Your task to perform on an android device: turn on data saver in the chrome app Image 0: 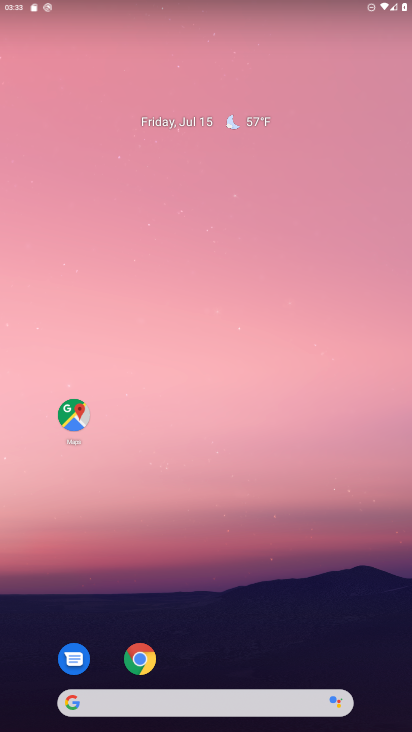
Step 0: drag from (238, 645) to (241, 50)
Your task to perform on an android device: turn on data saver in the chrome app Image 1: 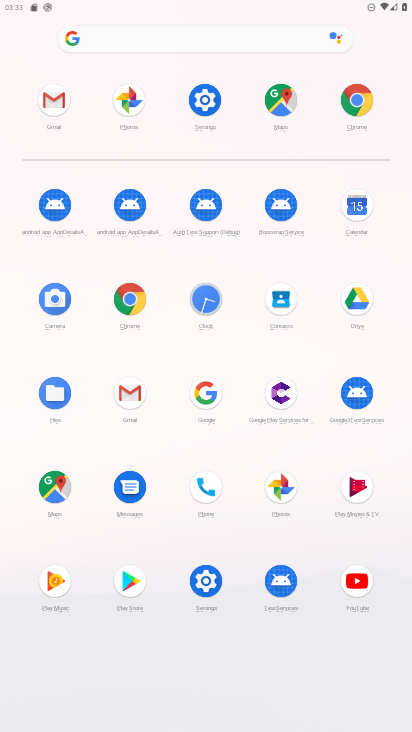
Step 1: click (135, 301)
Your task to perform on an android device: turn on data saver in the chrome app Image 2: 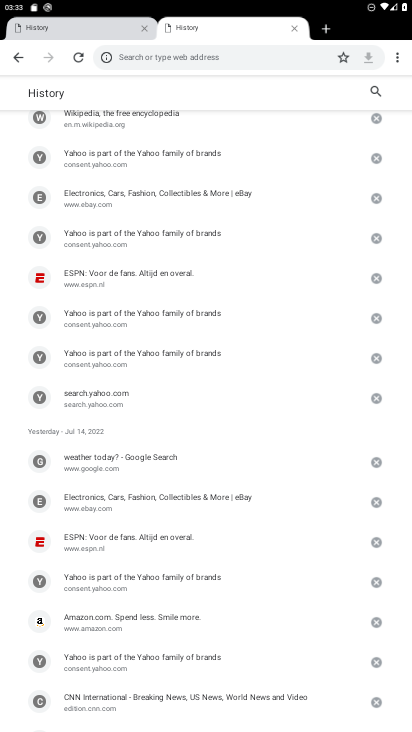
Step 2: click (398, 59)
Your task to perform on an android device: turn on data saver in the chrome app Image 3: 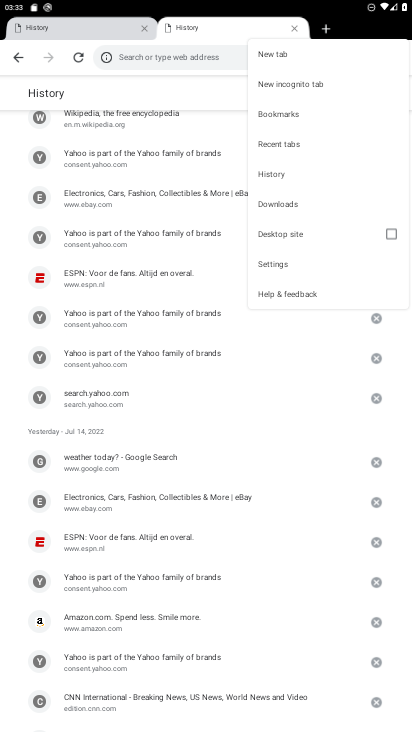
Step 3: click (268, 266)
Your task to perform on an android device: turn on data saver in the chrome app Image 4: 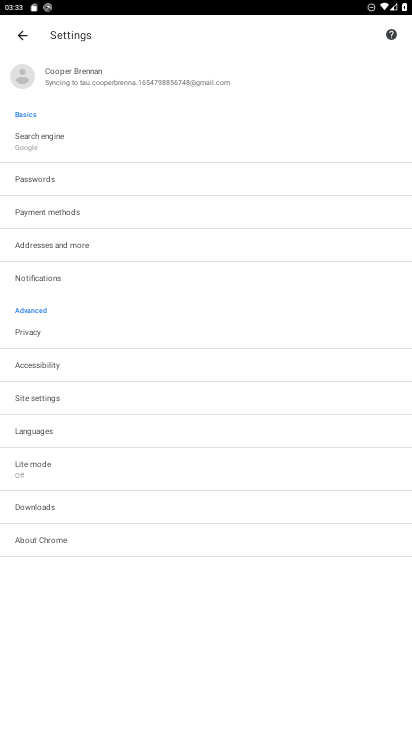
Step 4: click (46, 472)
Your task to perform on an android device: turn on data saver in the chrome app Image 5: 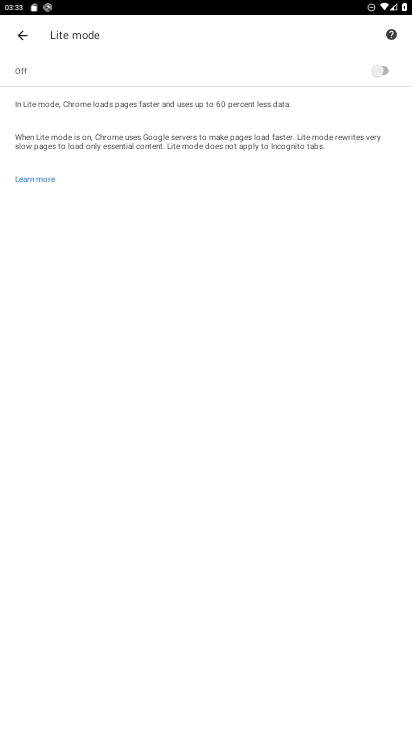
Step 5: click (389, 76)
Your task to perform on an android device: turn on data saver in the chrome app Image 6: 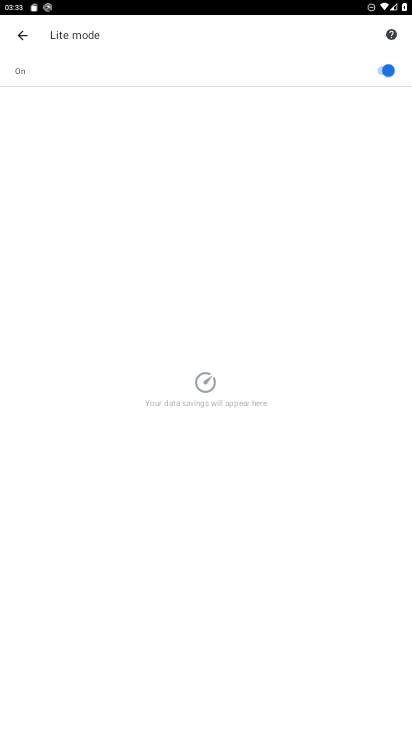
Step 6: task complete